Your task to perform on an android device: Go to Google maps Image 0: 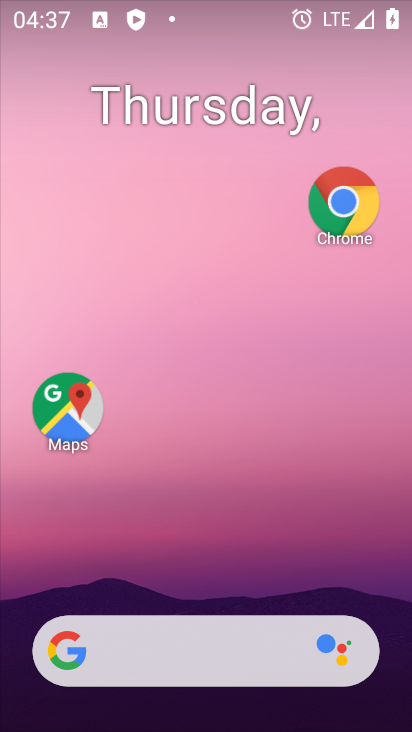
Step 0: drag from (278, 568) to (251, 132)
Your task to perform on an android device: Go to Google maps Image 1: 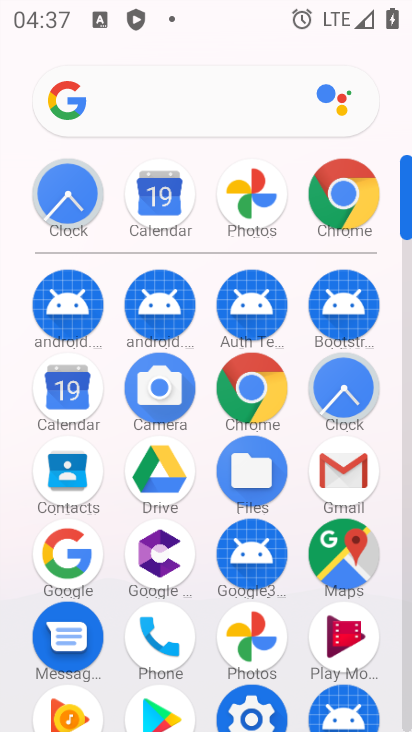
Step 1: click (364, 570)
Your task to perform on an android device: Go to Google maps Image 2: 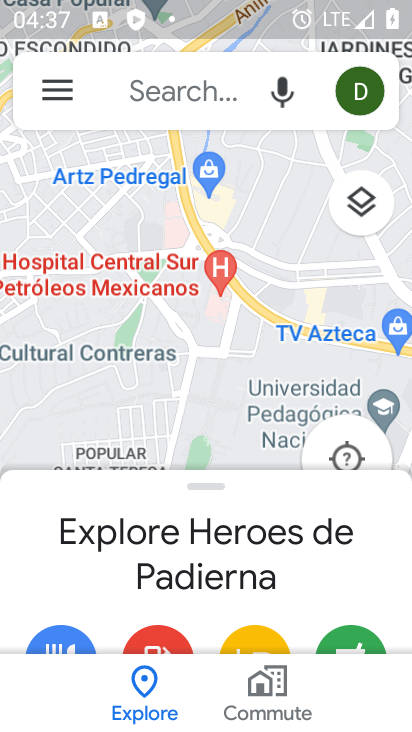
Step 2: task complete